Your task to perform on an android device: Empty the shopping cart on walmart.com. Add duracell triple a to the cart on walmart.com Image 0: 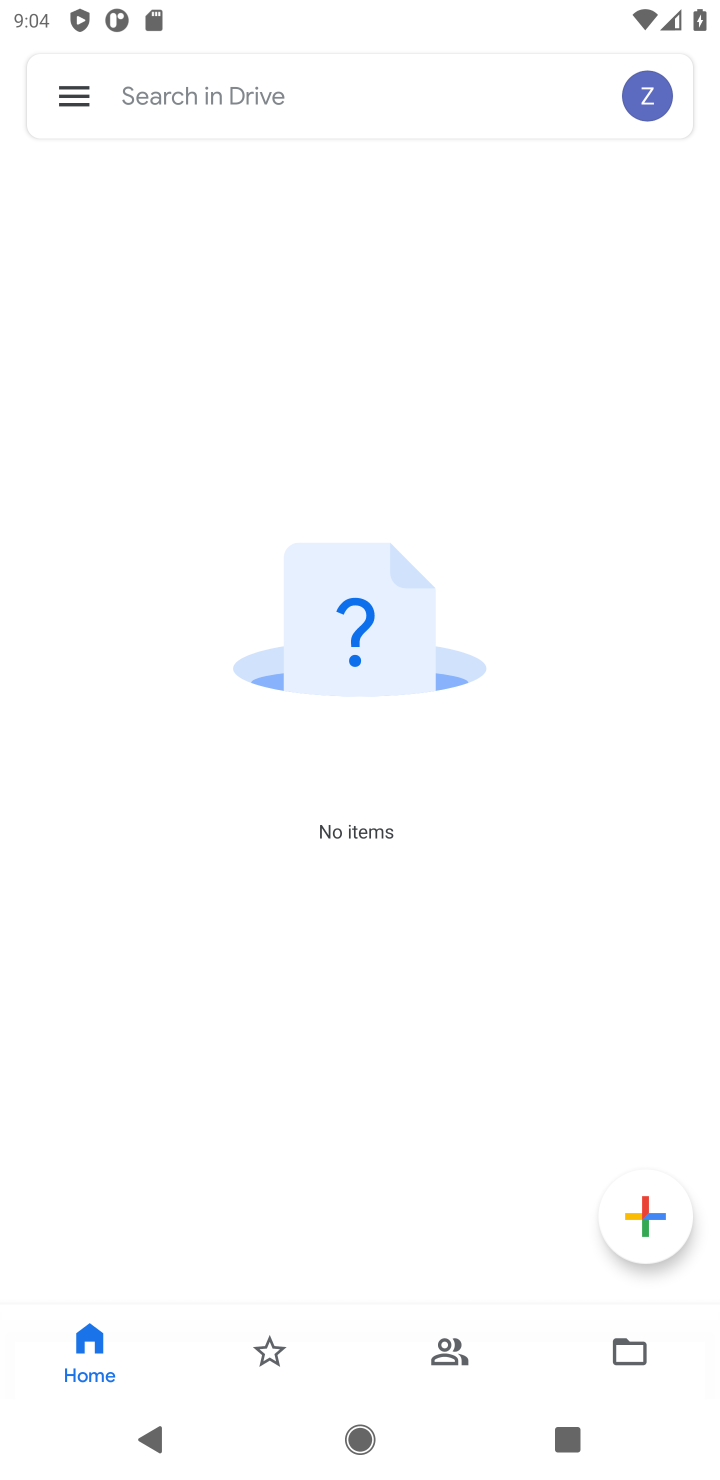
Step 0: press home button
Your task to perform on an android device: Empty the shopping cart on walmart.com. Add duracell triple a to the cart on walmart.com Image 1: 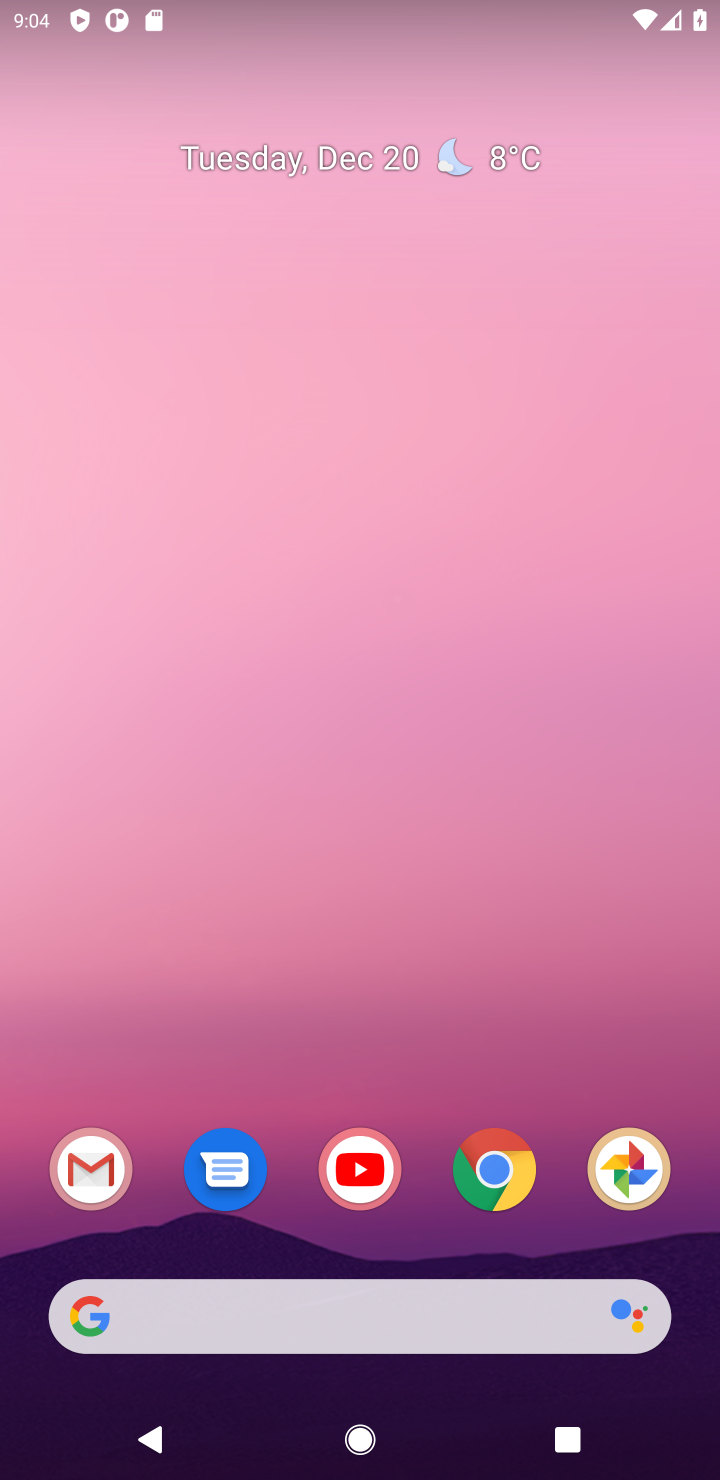
Step 1: click (510, 1184)
Your task to perform on an android device: Empty the shopping cart on walmart.com. Add duracell triple a to the cart on walmart.com Image 2: 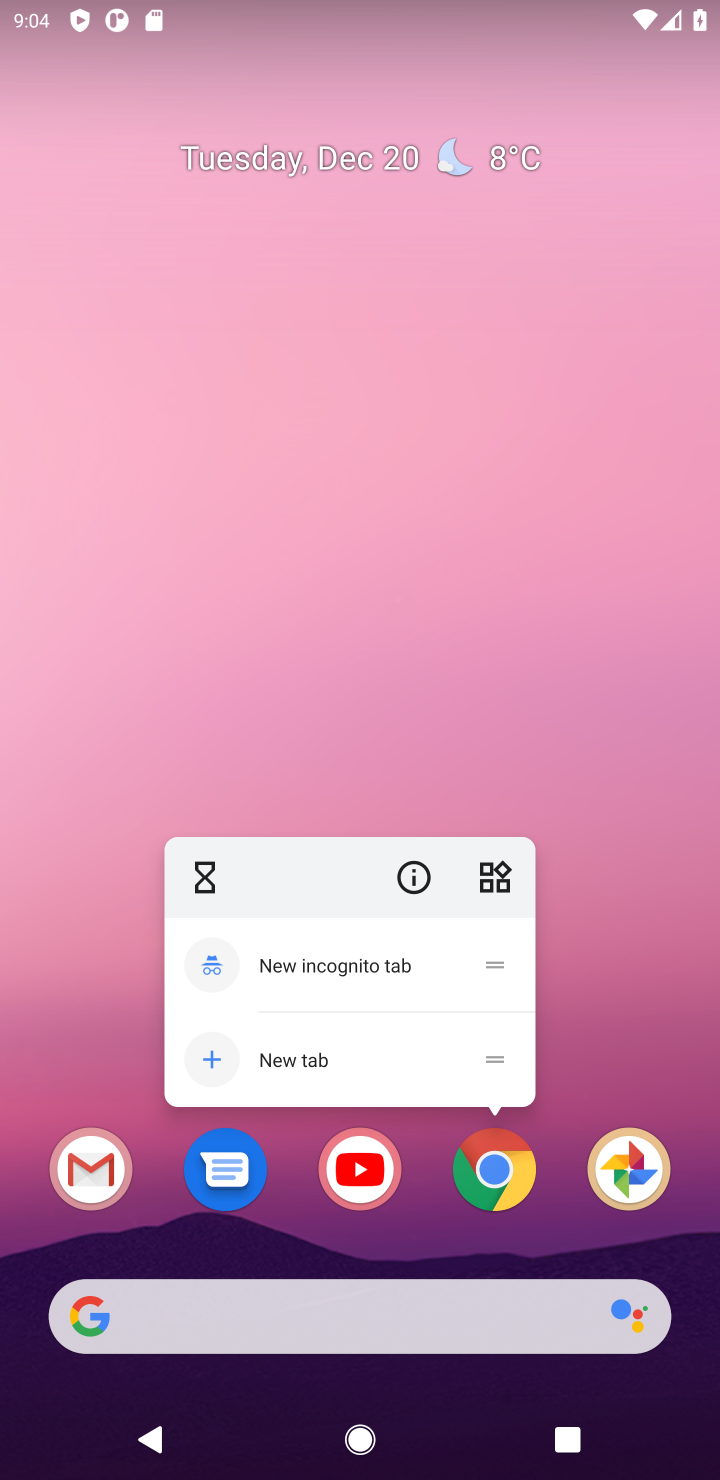
Step 2: click (510, 1184)
Your task to perform on an android device: Empty the shopping cart on walmart.com. Add duracell triple a to the cart on walmart.com Image 3: 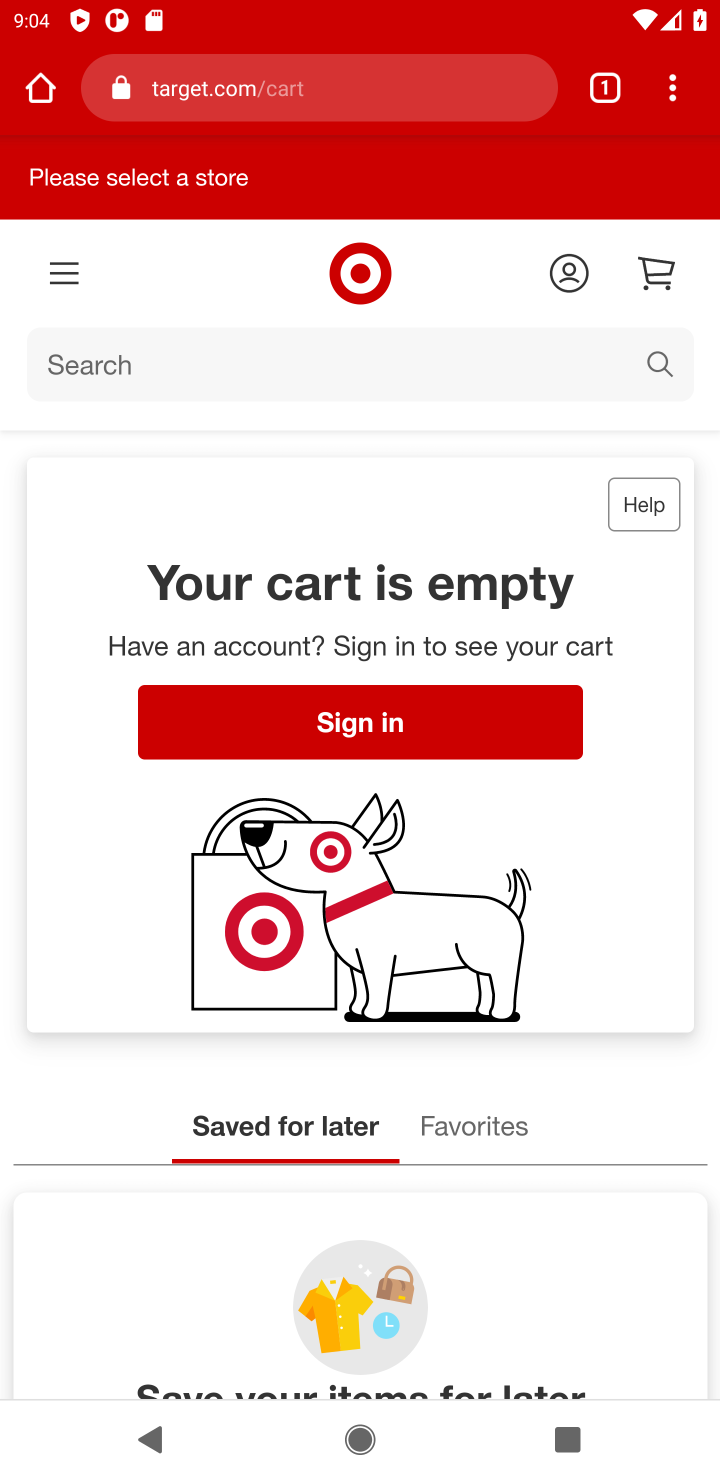
Step 3: press back button
Your task to perform on an android device: Empty the shopping cart on walmart.com. Add duracell triple a to the cart on walmart.com Image 4: 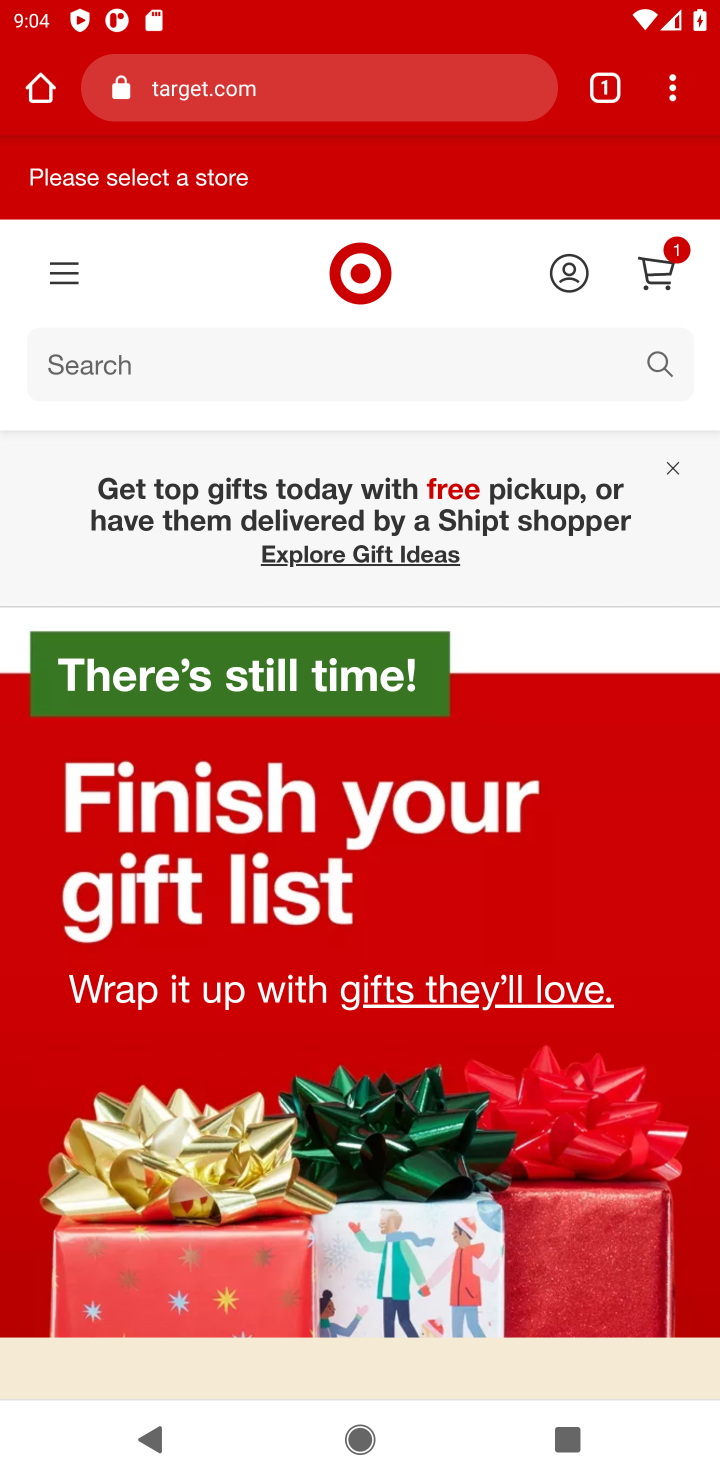
Step 4: click (234, 112)
Your task to perform on an android device: Empty the shopping cart on walmart.com. Add duracell triple a to the cart on walmart.com Image 5: 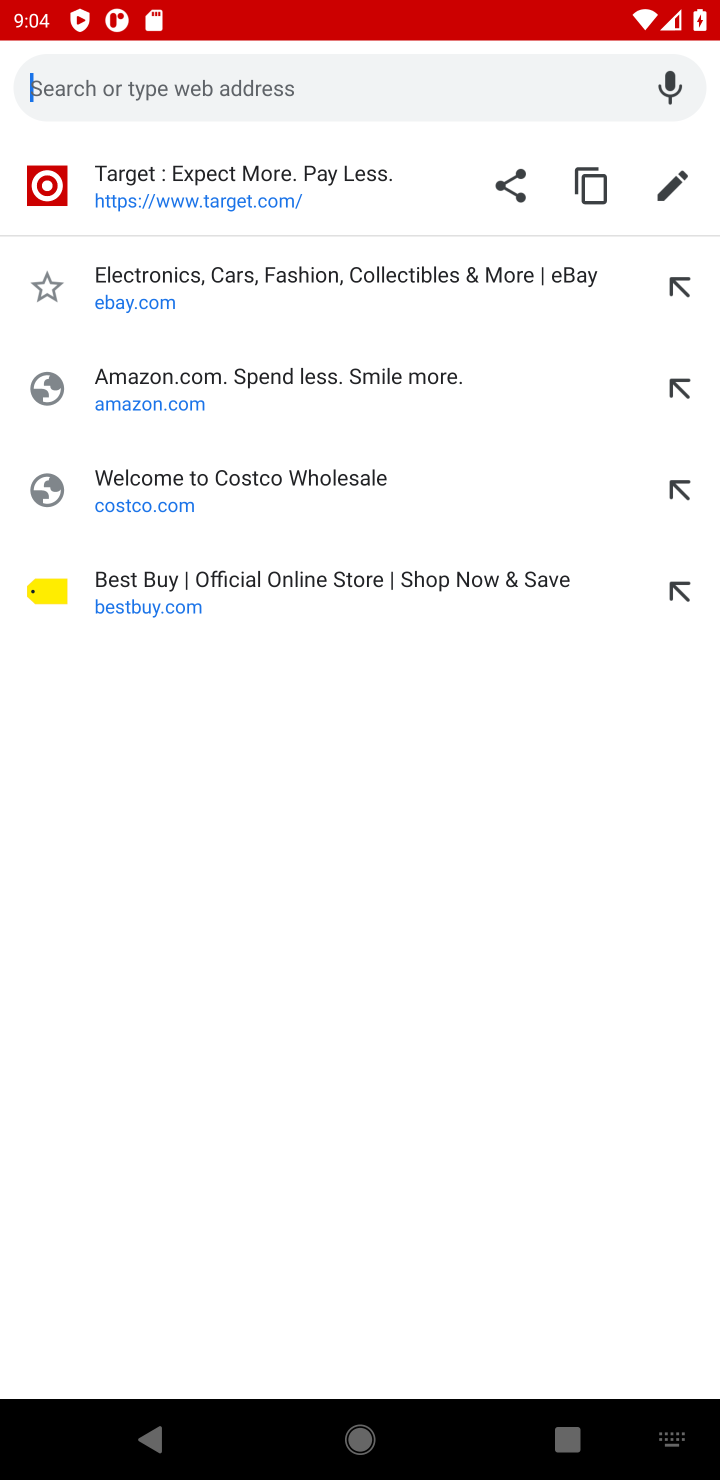
Step 5: type "walmart"
Your task to perform on an android device: Empty the shopping cart on walmart.com. Add duracell triple a to the cart on walmart.com Image 6: 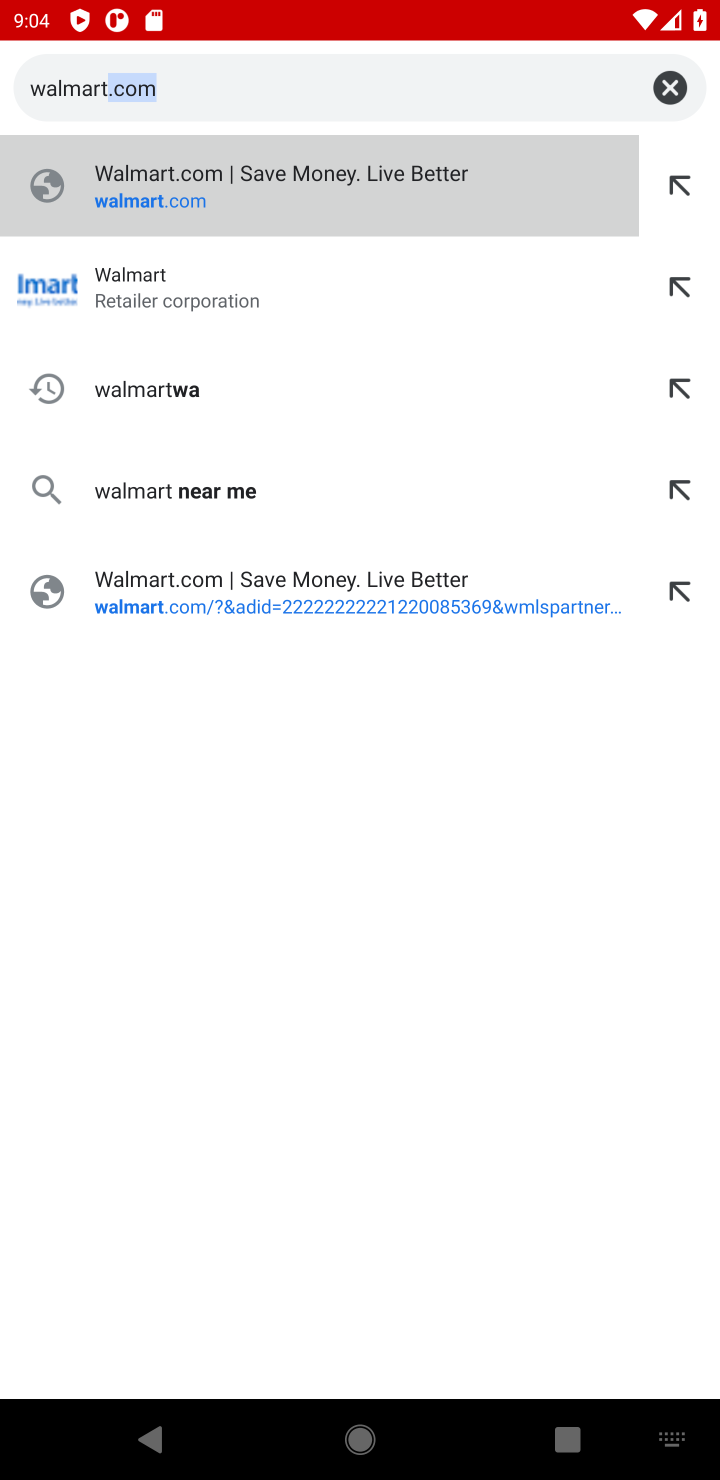
Step 6: click (216, 227)
Your task to perform on an android device: Empty the shopping cart on walmart.com. Add duracell triple a to the cart on walmart.com Image 7: 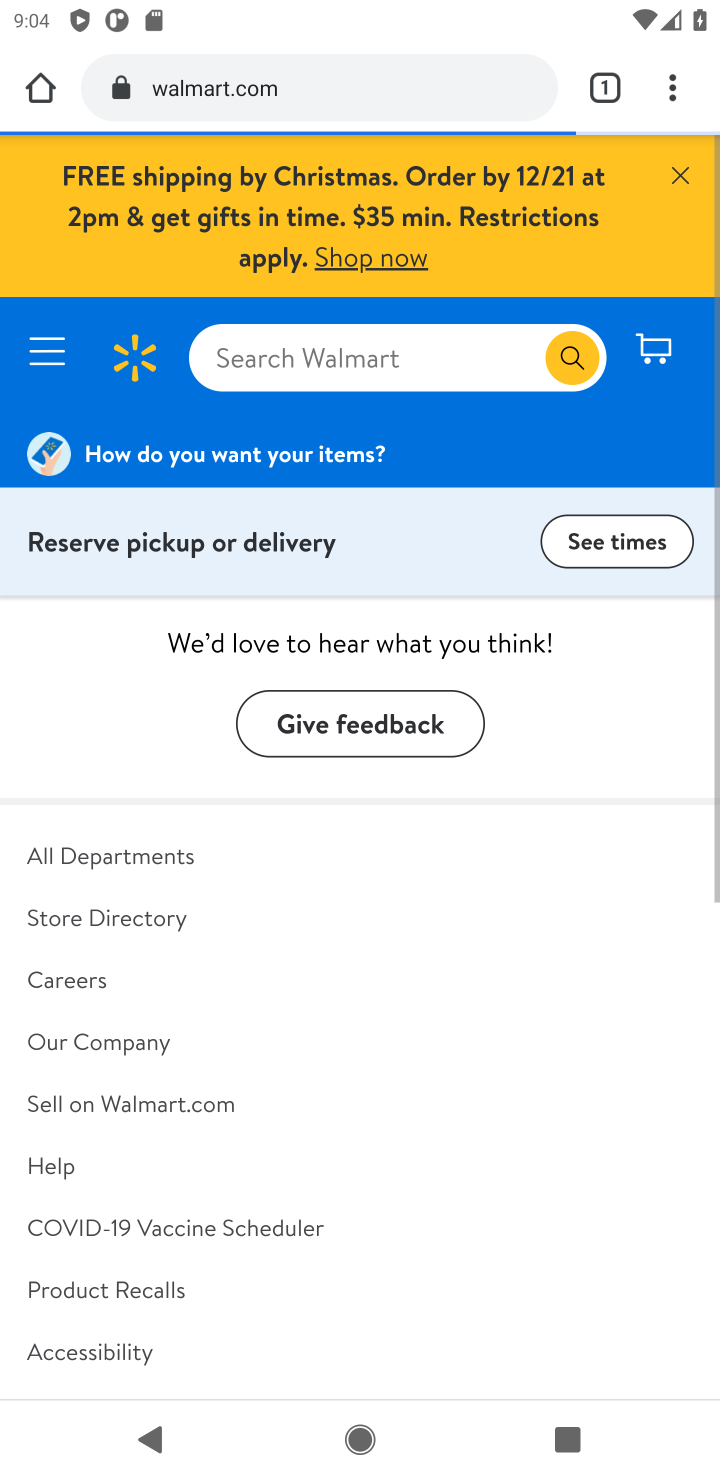
Step 7: click (339, 355)
Your task to perform on an android device: Empty the shopping cart on walmart.com. Add duracell triple a to the cart on walmart.com Image 8: 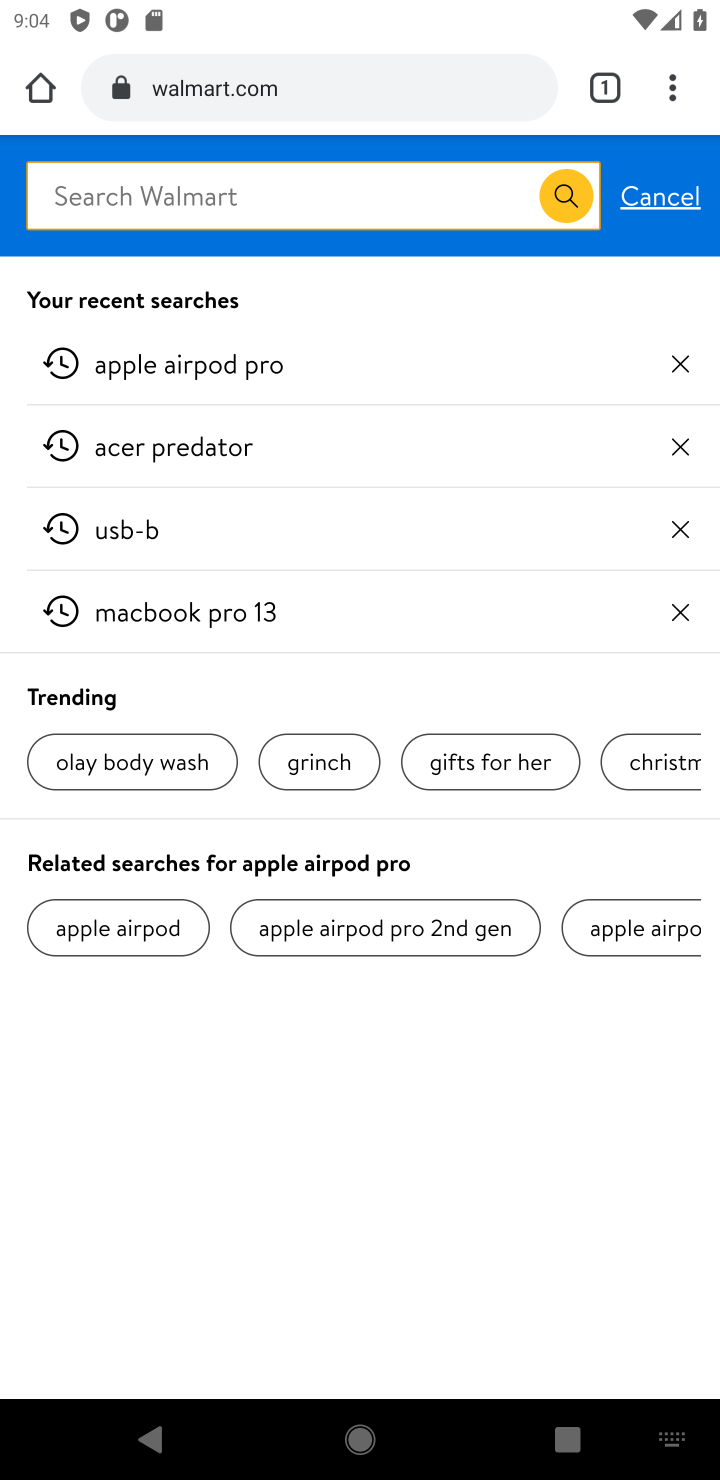
Step 8: type "duracell triple aa"
Your task to perform on an android device: Empty the shopping cart on walmart.com. Add duracell triple a to the cart on walmart.com Image 9: 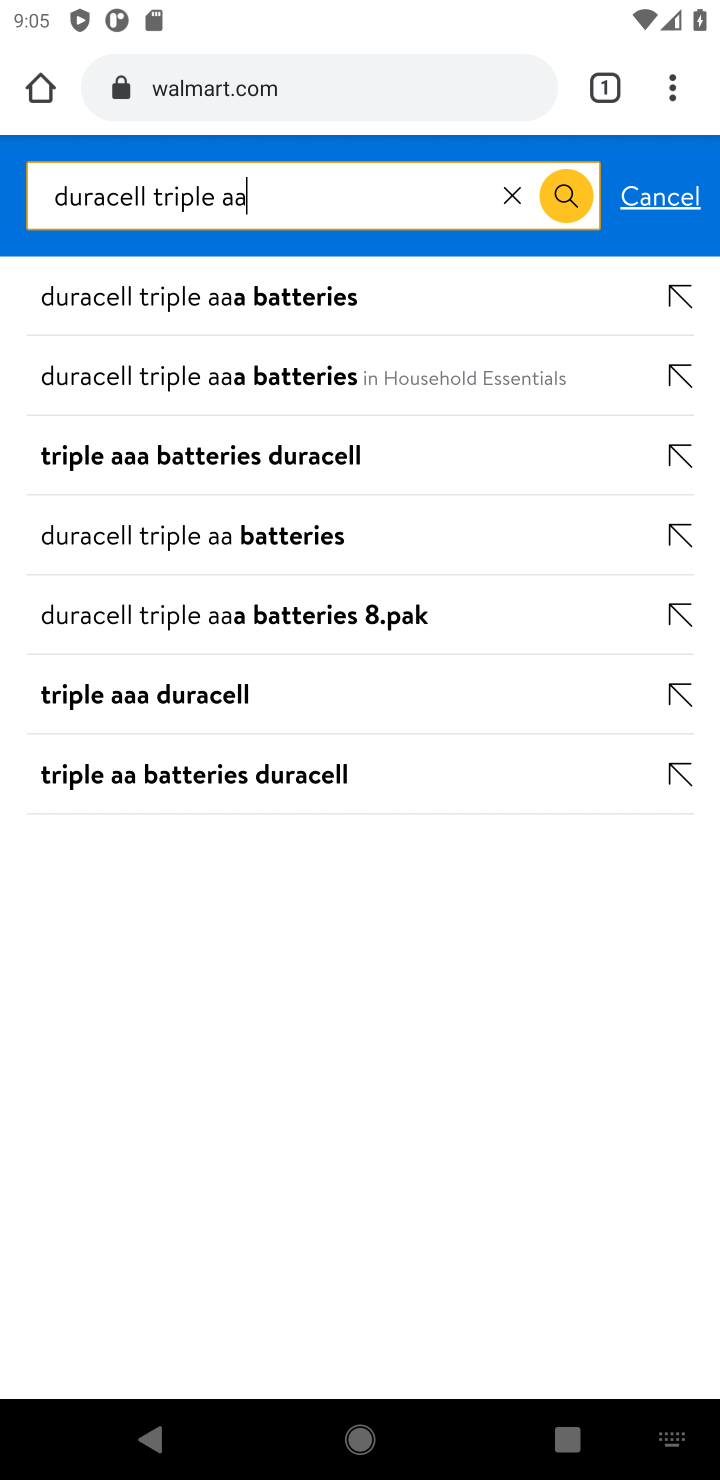
Step 9: click (199, 310)
Your task to perform on an android device: Empty the shopping cart on walmart.com. Add duracell triple a to the cart on walmart.com Image 10: 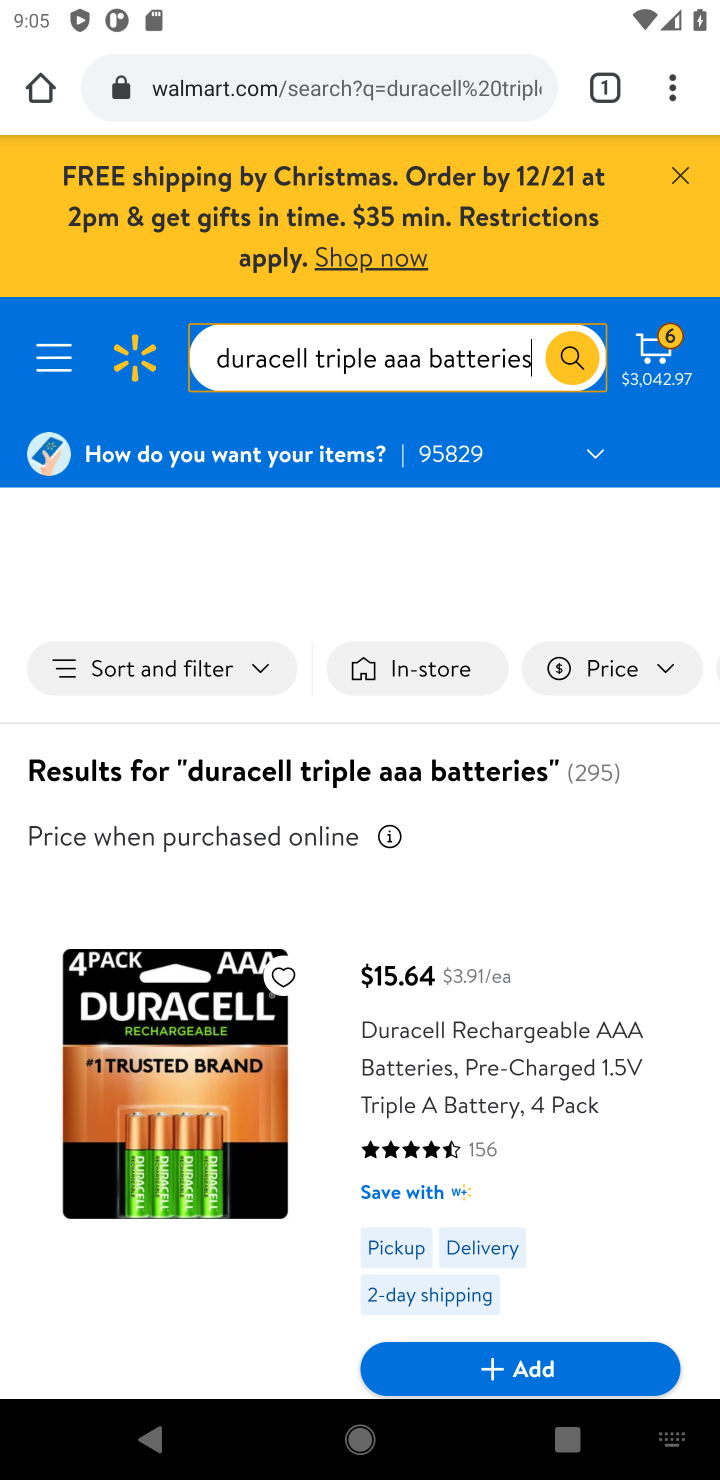
Step 10: click (522, 1367)
Your task to perform on an android device: Empty the shopping cart on walmart.com. Add duracell triple a to the cart on walmart.com Image 11: 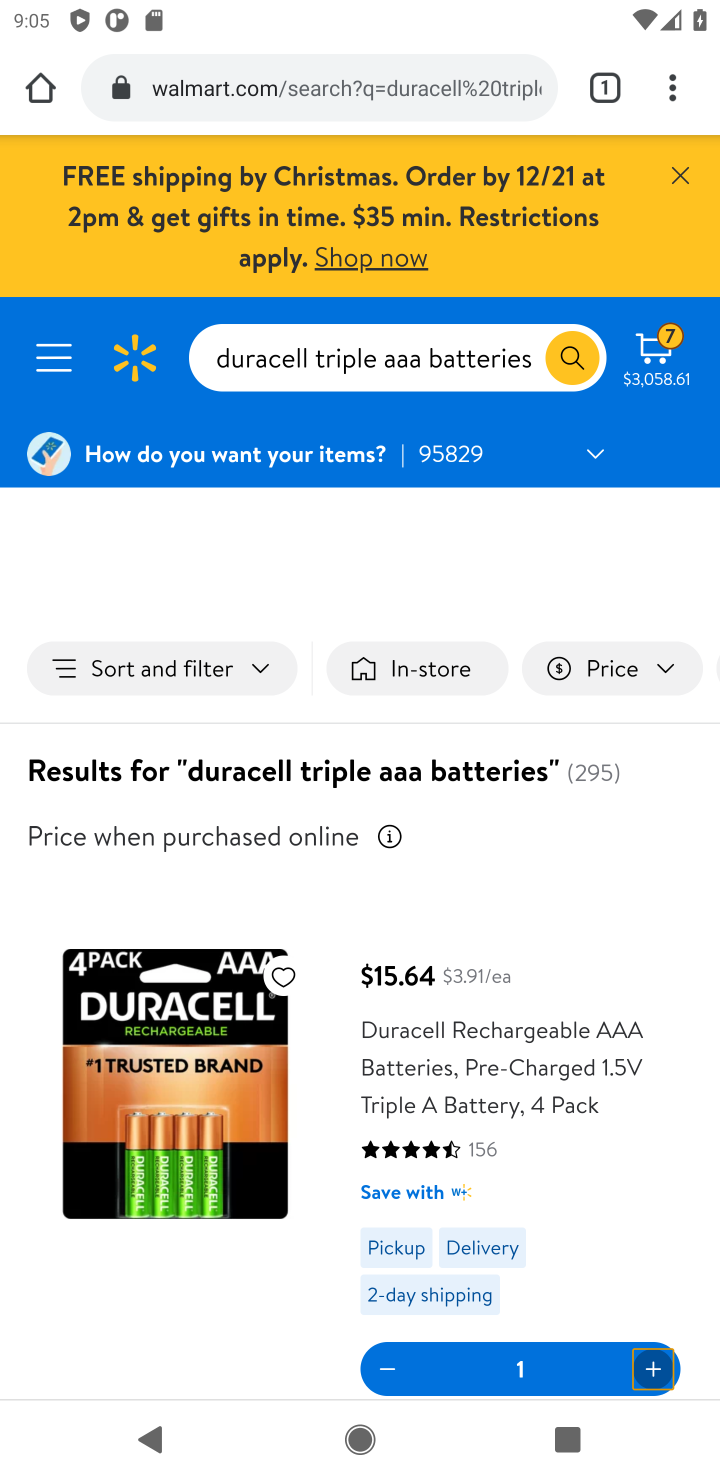
Step 11: task complete